Your task to perform on an android device: Go to Maps Image 0: 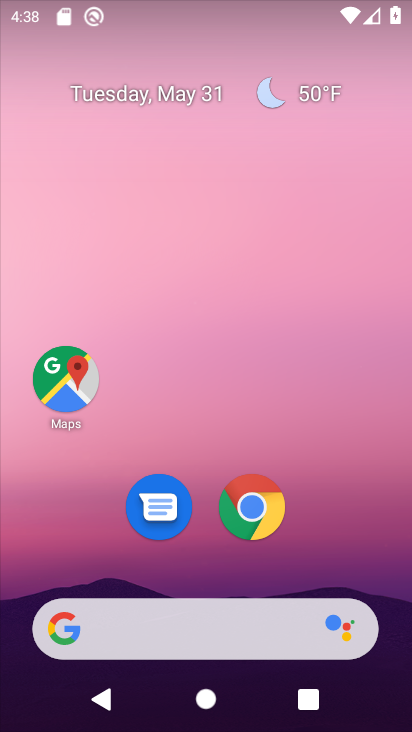
Step 0: click (52, 369)
Your task to perform on an android device: Go to Maps Image 1: 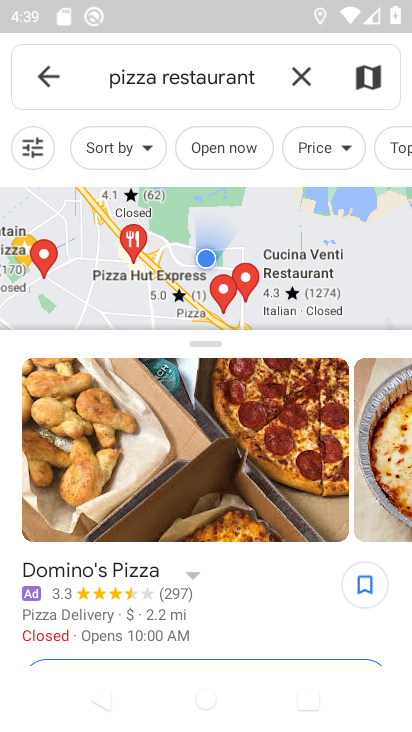
Step 1: click (301, 74)
Your task to perform on an android device: Go to Maps Image 2: 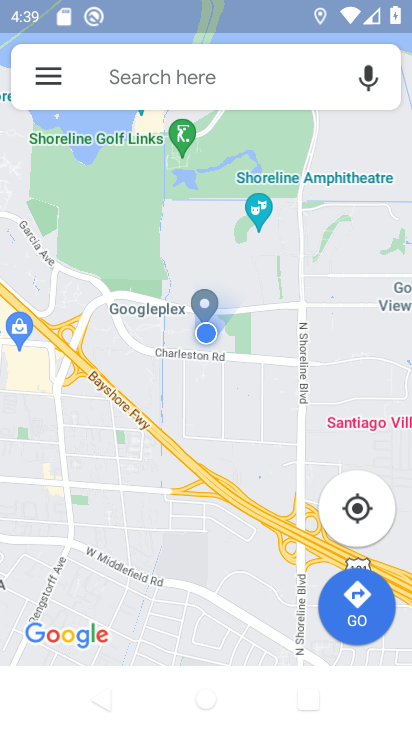
Step 2: task complete